Your task to perform on an android device: Do I have any events this weekend? Image 0: 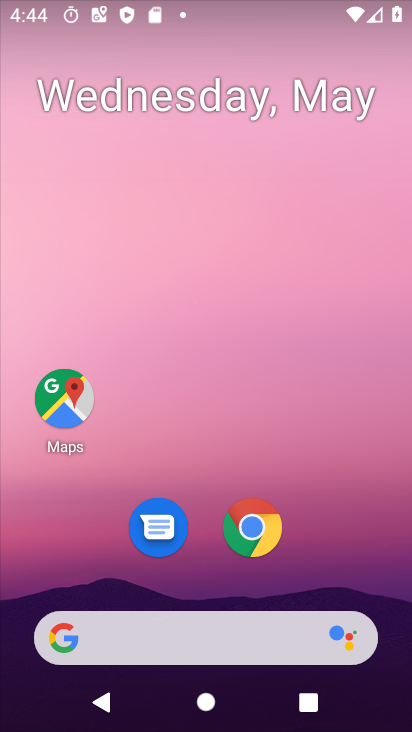
Step 0: drag from (303, 562) to (296, 111)
Your task to perform on an android device: Do I have any events this weekend? Image 1: 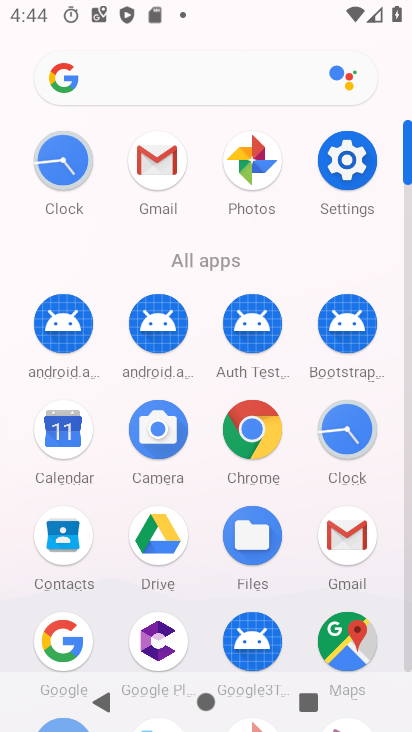
Step 1: click (50, 429)
Your task to perform on an android device: Do I have any events this weekend? Image 2: 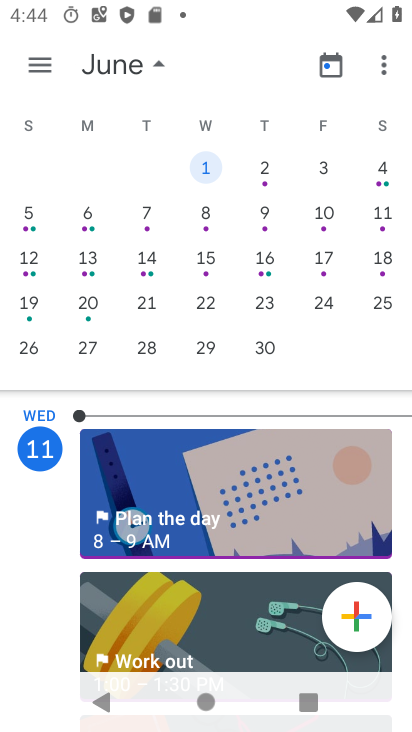
Step 2: click (43, 64)
Your task to perform on an android device: Do I have any events this weekend? Image 3: 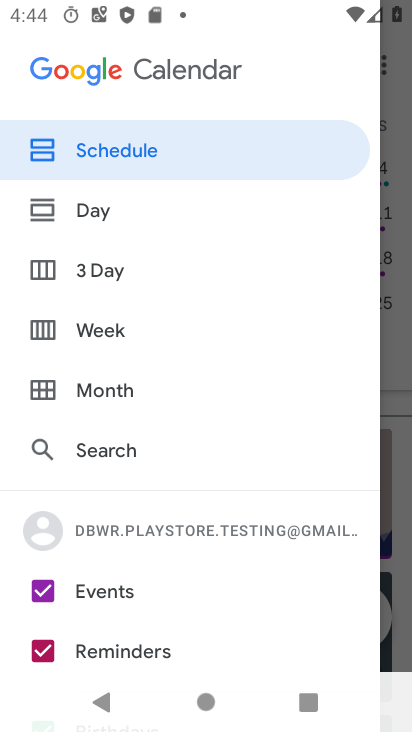
Step 3: click (113, 152)
Your task to perform on an android device: Do I have any events this weekend? Image 4: 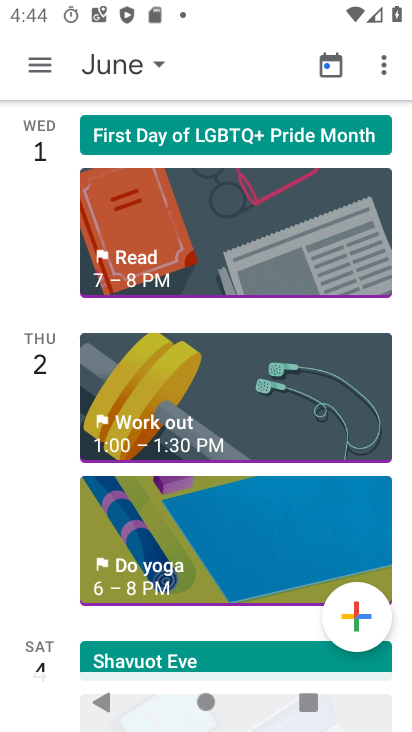
Step 4: task complete